Your task to perform on an android device: Open Youtube and go to the subscriptions tab Image 0: 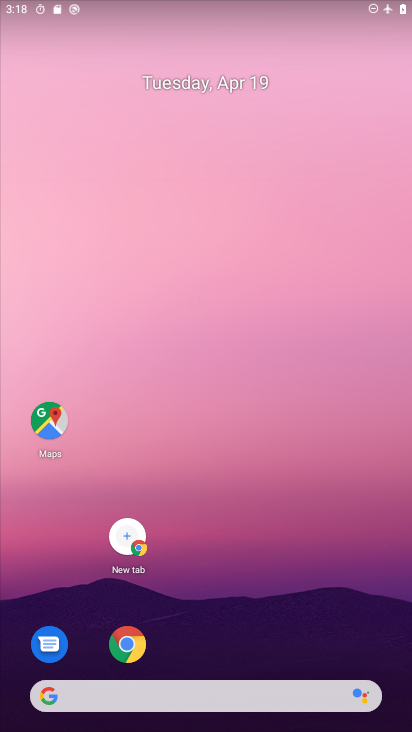
Step 0: press home button
Your task to perform on an android device: Open Youtube and go to the subscriptions tab Image 1: 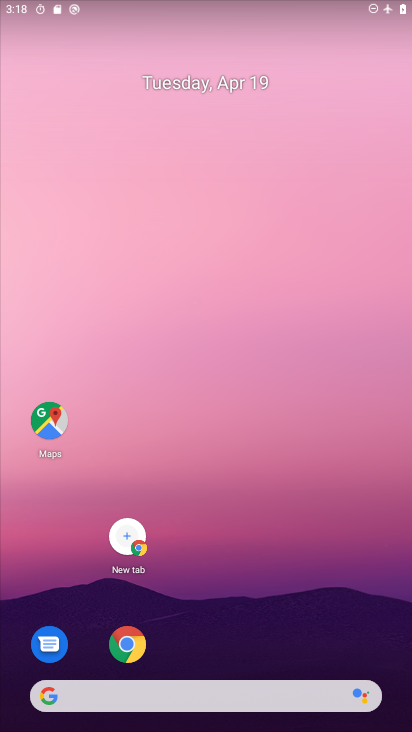
Step 1: drag from (240, 595) to (209, 165)
Your task to perform on an android device: Open Youtube and go to the subscriptions tab Image 2: 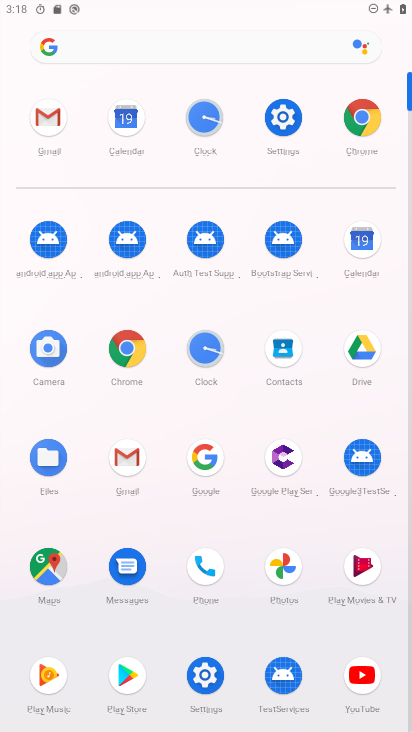
Step 2: click (362, 673)
Your task to perform on an android device: Open Youtube and go to the subscriptions tab Image 3: 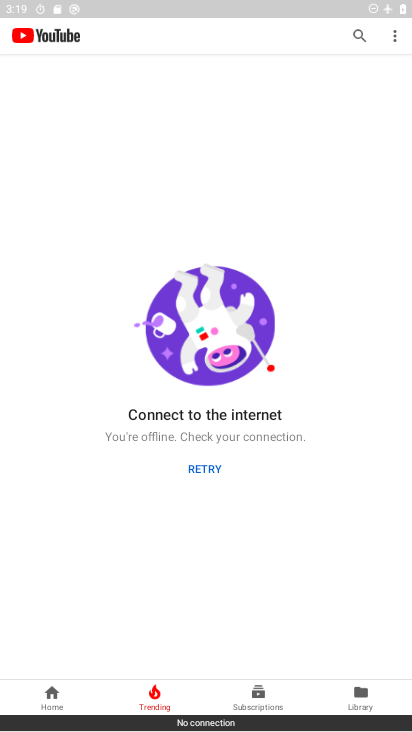
Step 3: click (257, 695)
Your task to perform on an android device: Open Youtube and go to the subscriptions tab Image 4: 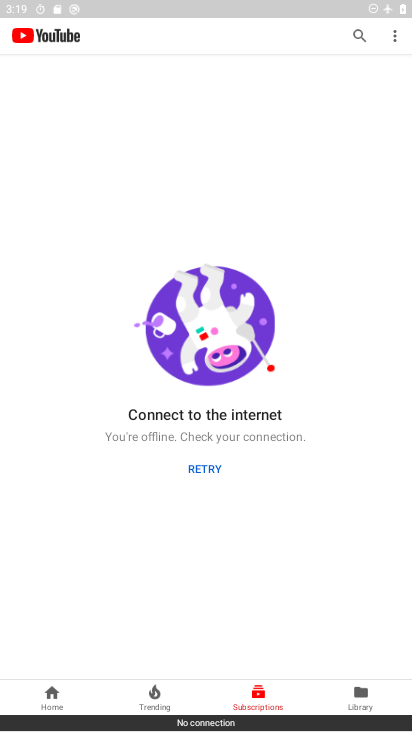
Step 4: task complete